Your task to perform on an android device: open app "Spotify: Music and Podcasts" (install if not already installed) and enter user name: "principled@inbox.com" and password: "arrests" Image 0: 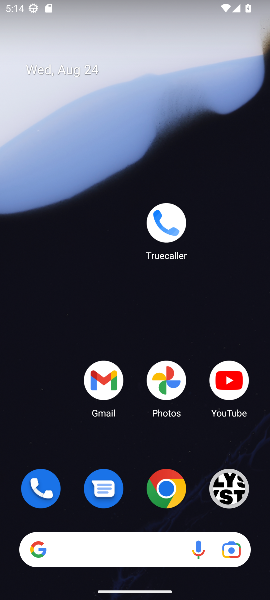
Step 0: drag from (151, 523) to (96, 82)
Your task to perform on an android device: open app "Spotify: Music and Podcasts" (install if not already installed) and enter user name: "principled@inbox.com" and password: "arrests" Image 1: 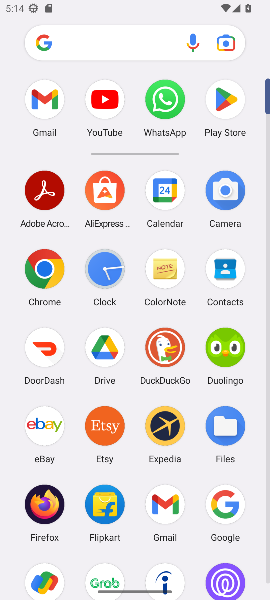
Step 1: click (237, 93)
Your task to perform on an android device: open app "Spotify: Music and Podcasts" (install if not already installed) and enter user name: "principled@inbox.com" and password: "arrests" Image 2: 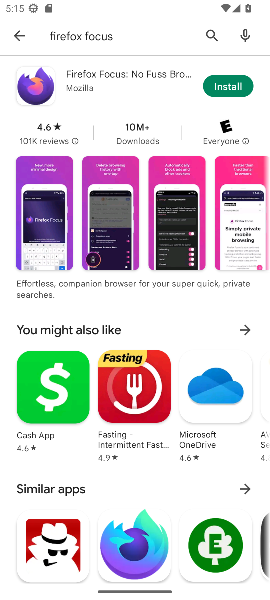
Step 2: click (207, 39)
Your task to perform on an android device: open app "Spotify: Music and Podcasts" (install if not already installed) and enter user name: "principled@inbox.com" and password: "arrests" Image 3: 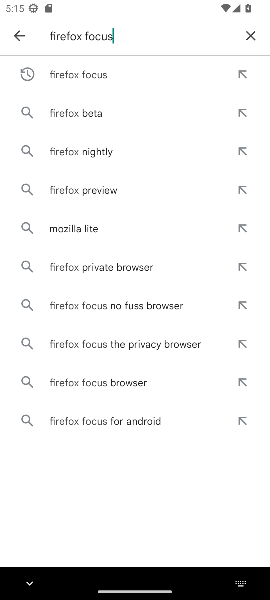
Step 3: click (246, 31)
Your task to perform on an android device: open app "Spotify: Music and Podcasts" (install if not already installed) and enter user name: "principled@inbox.com" and password: "arrests" Image 4: 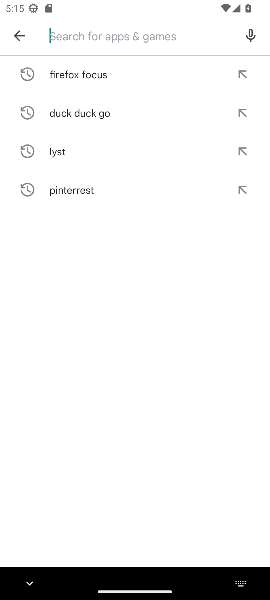
Step 4: type "spotiy"
Your task to perform on an android device: open app "Spotify: Music and Podcasts" (install if not already installed) and enter user name: "principled@inbox.com" and password: "arrests" Image 5: 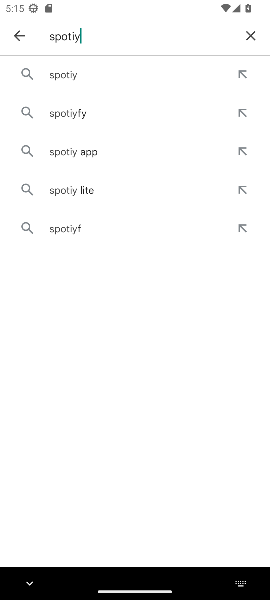
Step 5: click (73, 64)
Your task to perform on an android device: open app "Spotify: Music and Podcasts" (install if not already installed) and enter user name: "principled@inbox.com" and password: "arrests" Image 6: 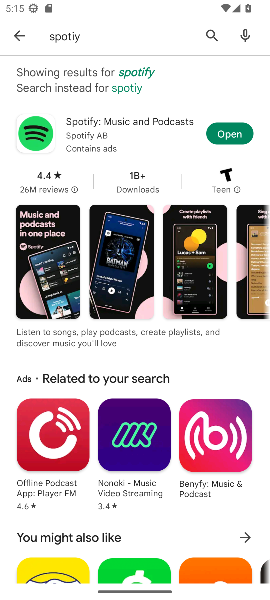
Step 6: click (219, 124)
Your task to perform on an android device: open app "Spotify: Music and Podcasts" (install if not already installed) and enter user name: "principled@inbox.com" and password: "arrests" Image 7: 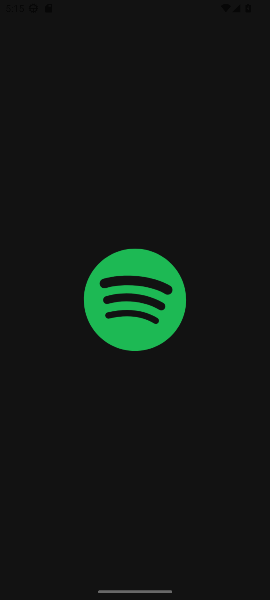
Step 7: task complete